Your task to perform on an android device: Go to accessibility settings Image 0: 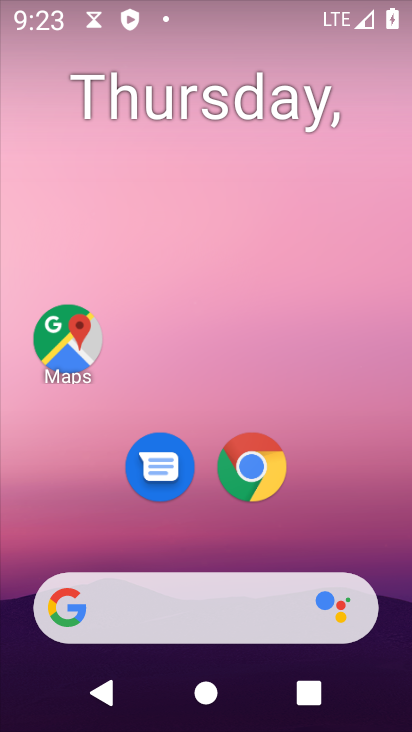
Step 0: drag from (318, 533) to (340, 15)
Your task to perform on an android device: Go to accessibility settings Image 1: 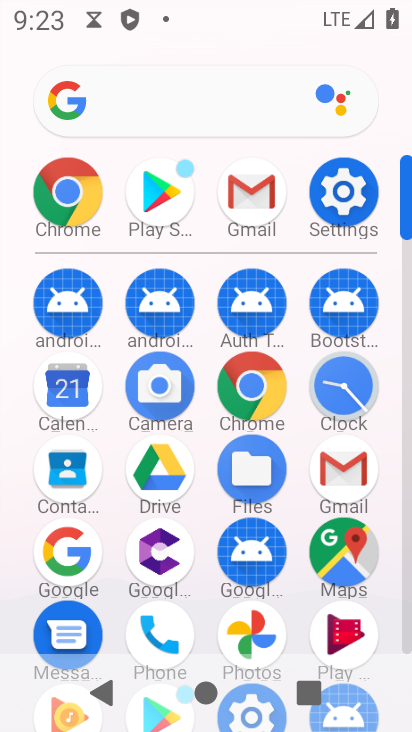
Step 1: click (337, 190)
Your task to perform on an android device: Go to accessibility settings Image 2: 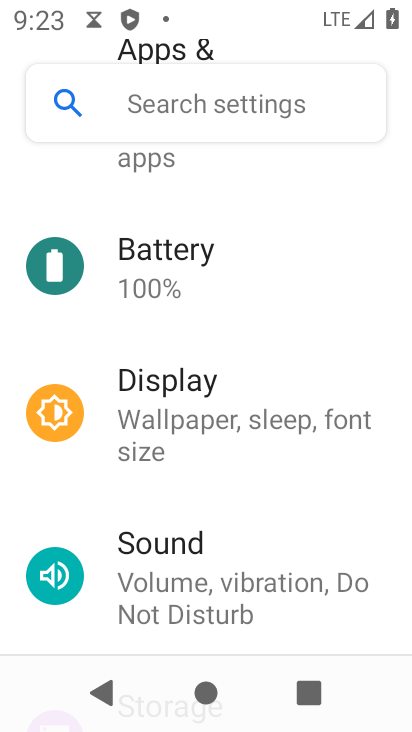
Step 2: drag from (140, 485) to (148, 429)
Your task to perform on an android device: Go to accessibility settings Image 3: 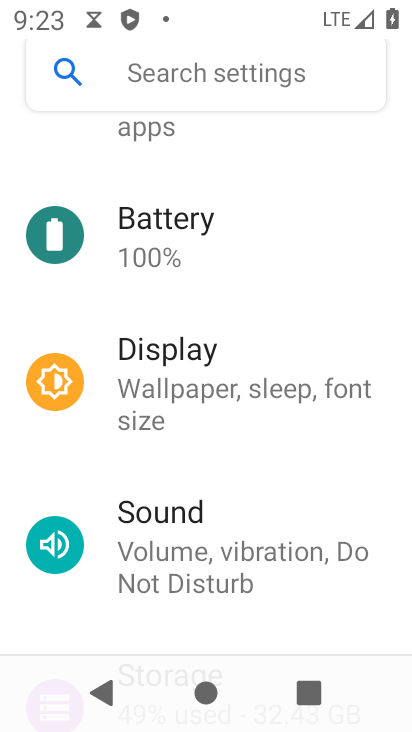
Step 3: drag from (146, 493) to (158, 423)
Your task to perform on an android device: Go to accessibility settings Image 4: 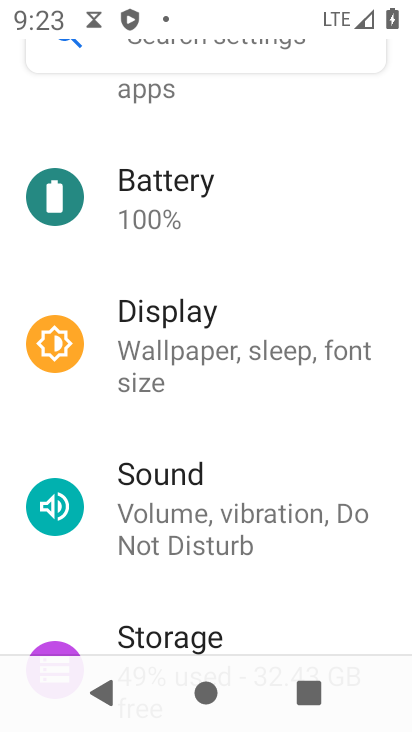
Step 4: drag from (158, 501) to (170, 423)
Your task to perform on an android device: Go to accessibility settings Image 5: 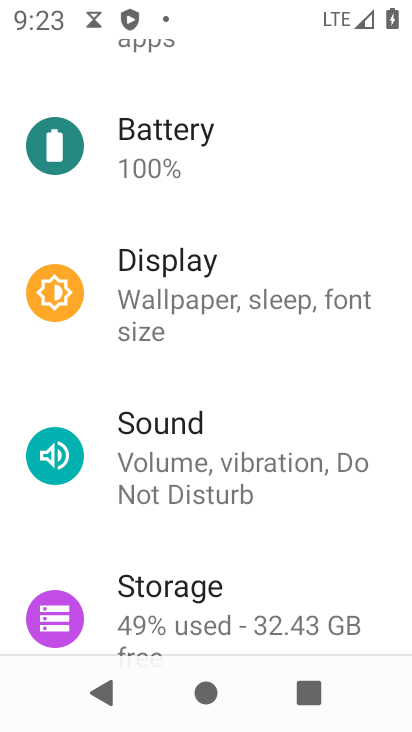
Step 5: drag from (165, 486) to (189, 387)
Your task to perform on an android device: Go to accessibility settings Image 6: 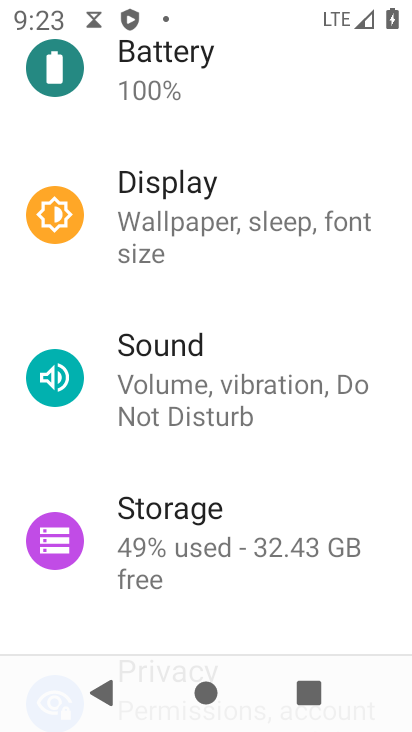
Step 6: drag from (194, 463) to (206, 385)
Your task to perform on an android device: Go to accessibility settings Image 7: 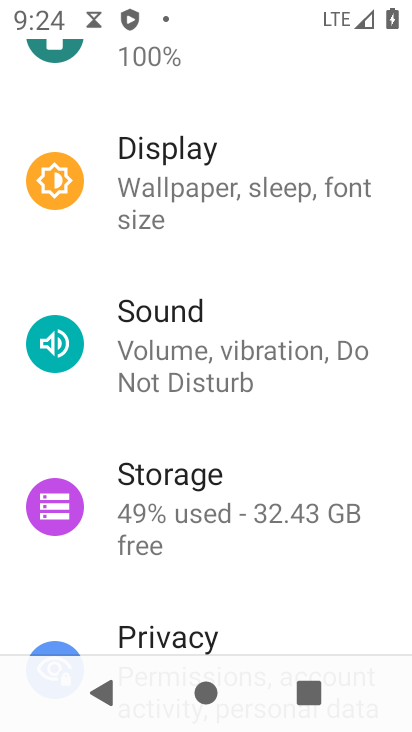
Step 7: drag from (206, 481) to (210, 422)
Your task to perform on an android device: Go to accessibility settings Image 8: 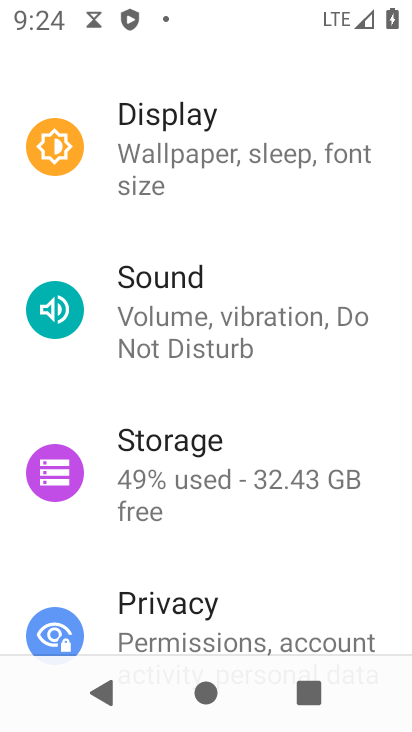
Step 8: drag from (195, 509) to (209, 409)
Your task to perform on an android device: Go to accessibility settings Image 9: 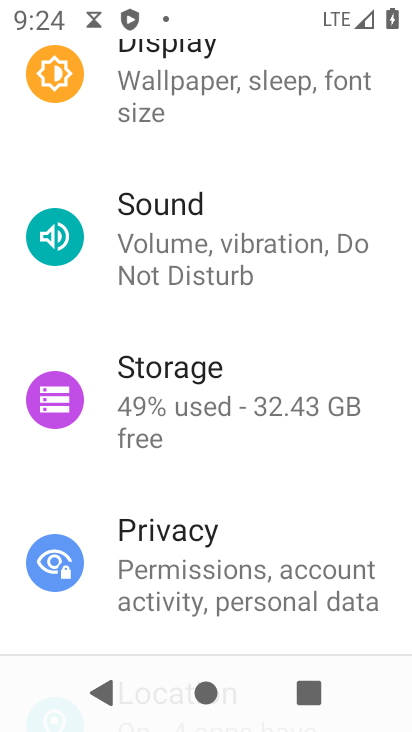
Step 9: drag from (199, 524) to (209, 440)
Your task to perform on an android device: Go to accessibility settings Image 10: 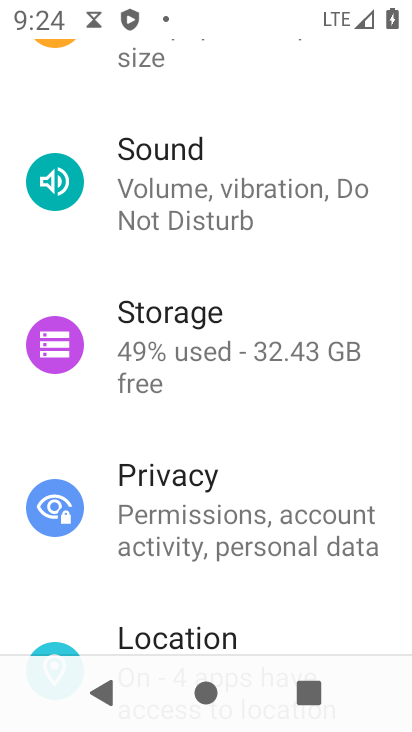
Step 10: drag from (199, 525) to (214, 429)
Your task to perform on an android device: Go to accessibility settings Image 11: 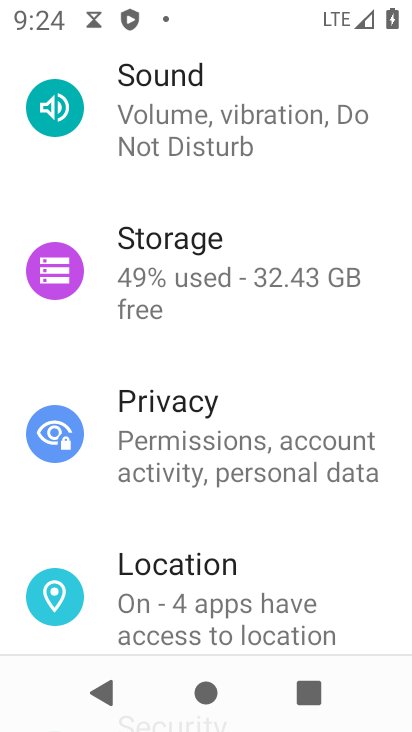
Step 11: drag from (194, 508) to (202, 431)
Your task to perform on an android device: Go to accessibility settings Image 12: 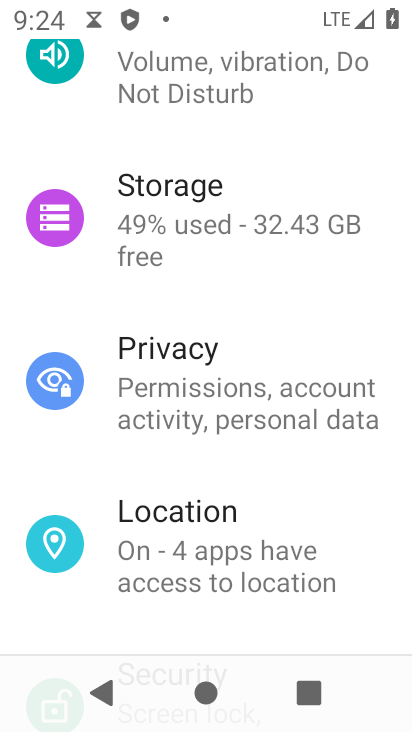
Step 12: drag from (187, 544) to (200, 461)
Your task to perform on an android device: Go to accessibility settings Image 13: 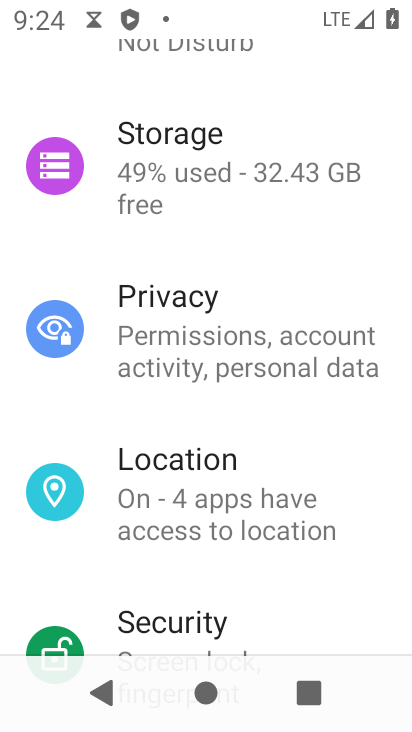
Step 13: drag from (183, 534) to (202, 431)
Your task to perform on an android device: Go to accessibility settings Image 14: 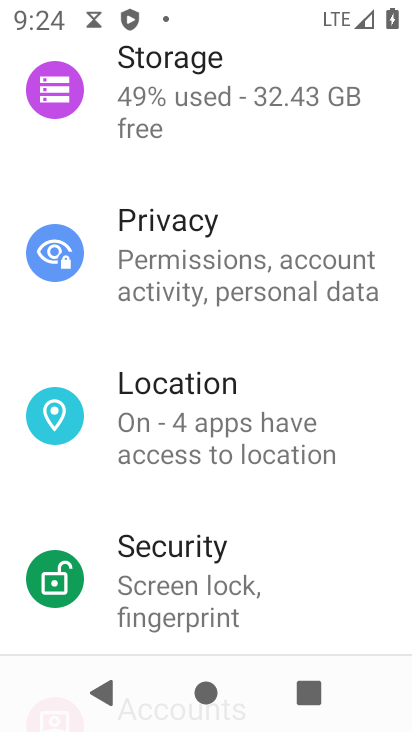
Step 14: drag from (178, 555) to (197, 459)
Your task to perform on an android device: Go to accessibility settings Image 15: 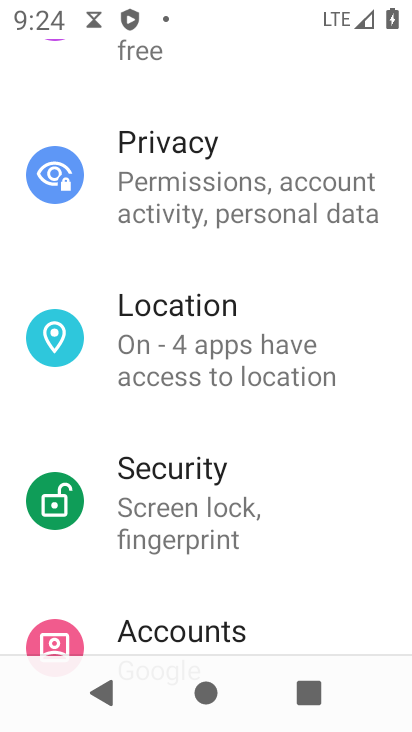
Step 15: drag from (191, 549) to (224, 431)
Your task to perform on an android device: Go to accessibility settings Image 16: 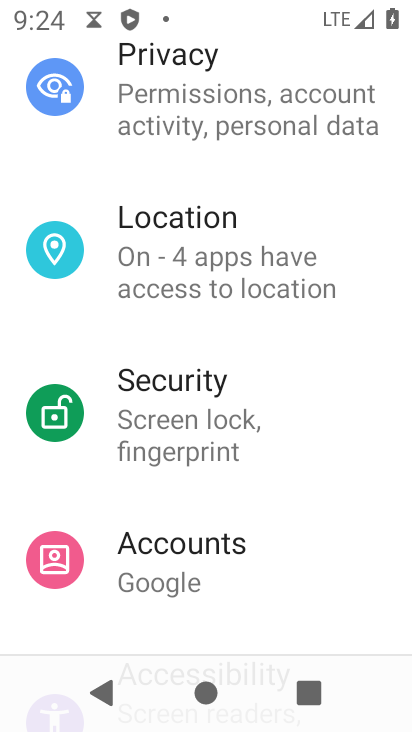
Step 16: drag from (205, 552) to (225, 442)
Your task to perform on an android device: Go to accessibility settings Image 17: 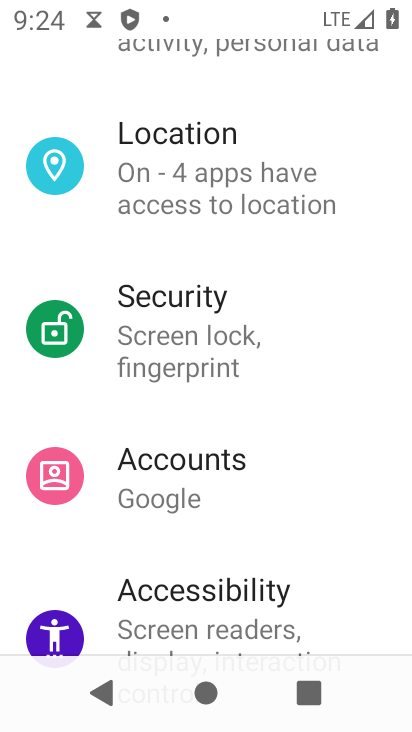
Step 17: click (202, 591)
Your task to perform on an android device: Go to accessibility settings Image 18: 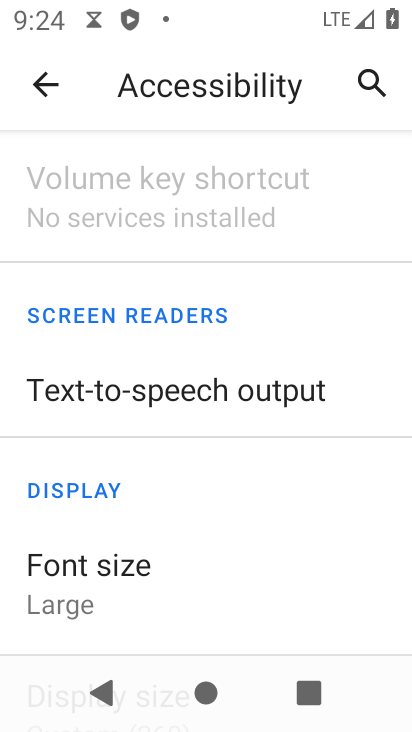
Step 18: task complete